Your task to perform on an android device: Open Yahoo.com Image 0: 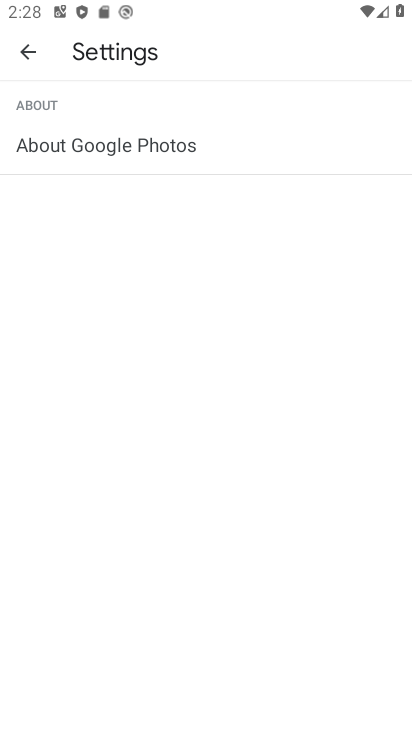
Step 0: press home button
Your task to perform on an android device: Open Yahoo.com Image 1: 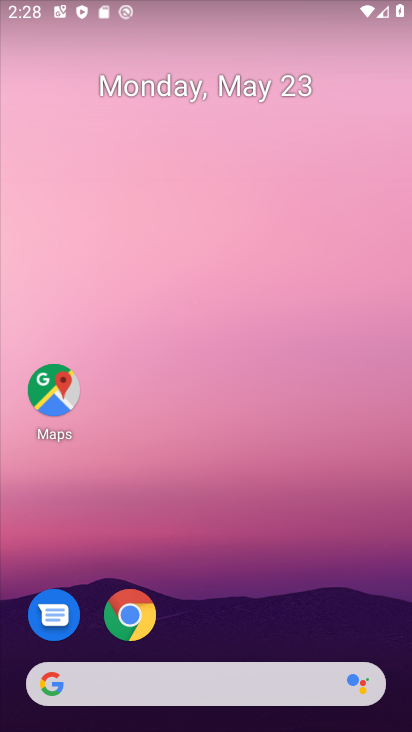
Step 1: drag from (366, 603) to (365, 223)
Your task to perform on an android device: Open Yahoo.com Image 2: 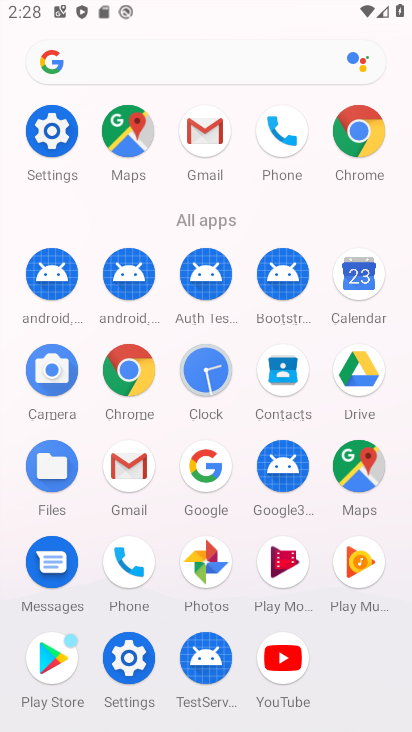
Step 2: click (121, 379)
Your task to perform on an android device: Open Yahoo.com Image 3: 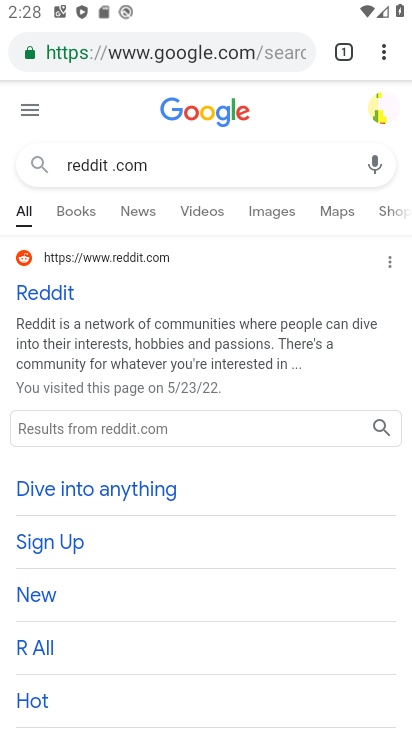
Step 3: click (233, 54)
Your task to perform on an android device: Open Yahoo.com Image 4: 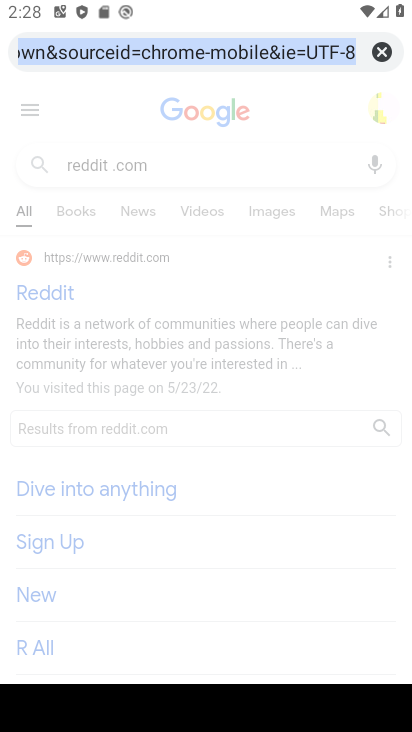
Step 4: click (385, 48)
Your task to perform on an android device: Open Yahoo.com Image 5: 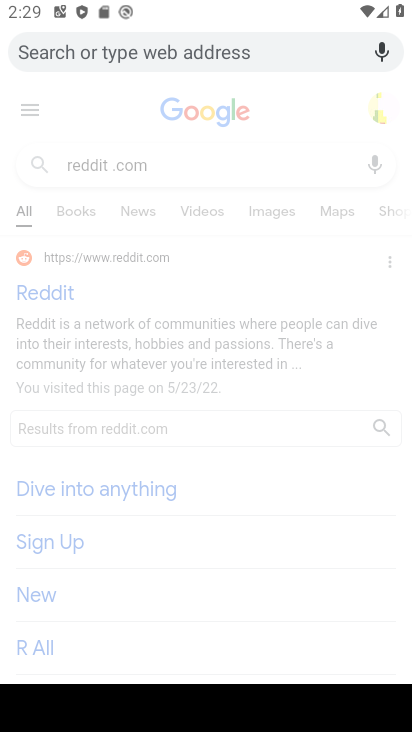
Step 5: type "yahoo.com"
Your task to perform on an android device: Open Yahoo.com Image 6: 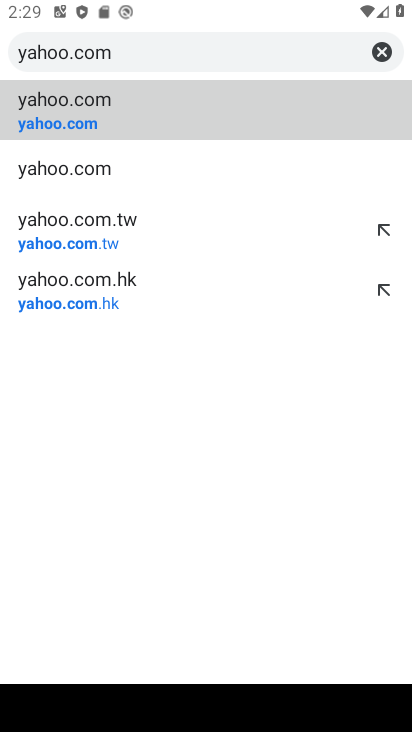
Step 6: click (169, 118)
Your task to perform on an android device: Open Yahoo.com Image 7: 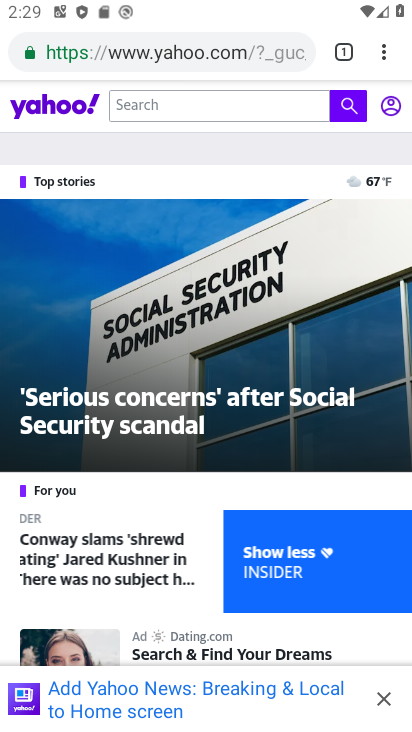
Step 7: task complete